Your task to perform on an android device: turn on wifi Image 0: 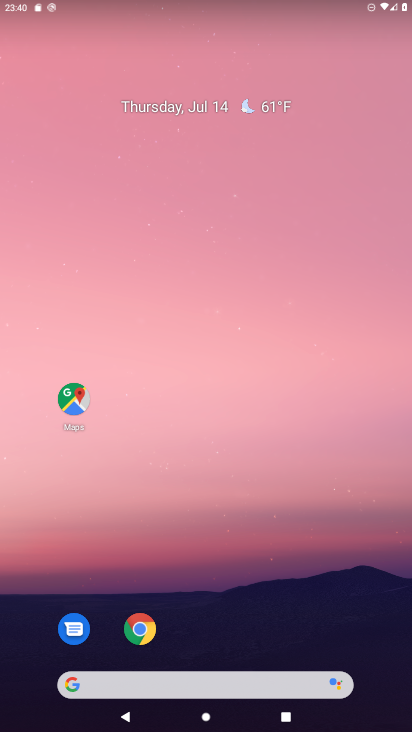
Step 0: drag from (268, 9) to (280, 640)
Your task to perform on an android device: turn on wifi Image 1: 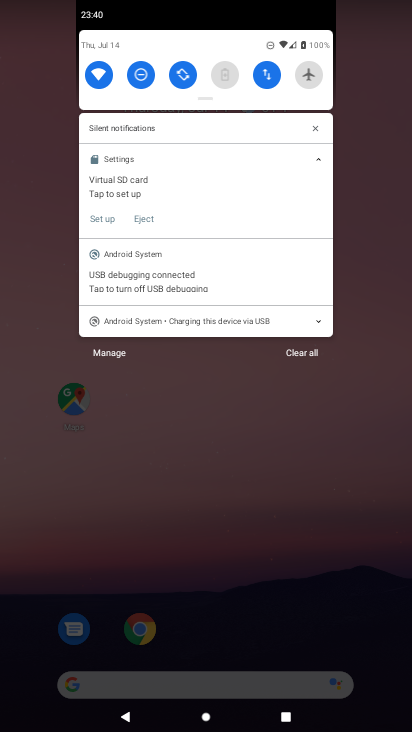
Step 1: task complete